Your task to perform on an android device: Add "dell xps" to the cart on target Image 0: 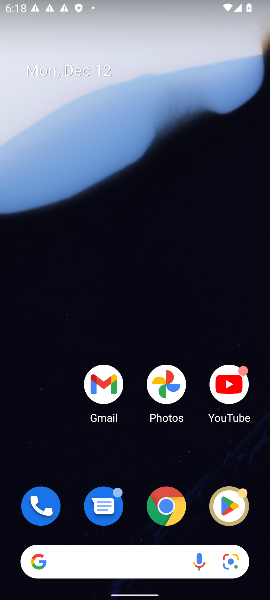
Step 0: click (151, 565)
Your task to perform on an android device: Add "dell xps" to the cart on target Image 1: 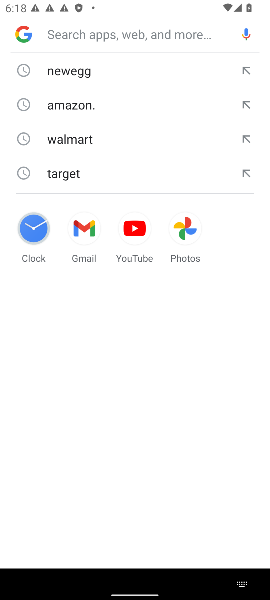
Step 1: click (96, 178)
Your task to perform on an android device: Add "dell xps" to the cart on target Image 2: 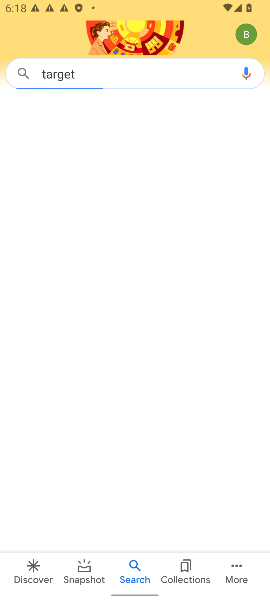
Step 2: click (96, 178)
Your task to perform on an android device: Add "dell xps" to the cart on target Image 3: 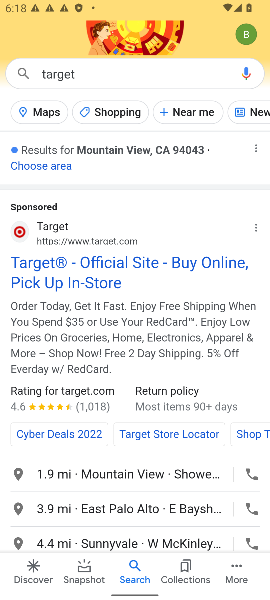
Step 3: click (59, 283)
Your task to perform on an android device: Add "dell xps" to the cart on target Image 4: 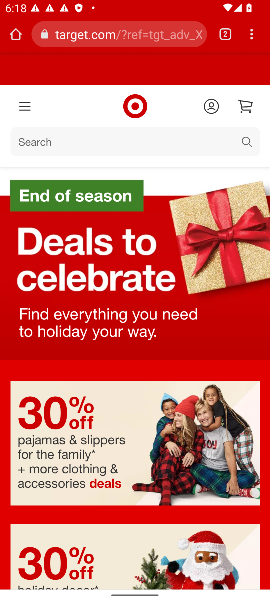
Step 4: click (92, 149)
Your task to perform on an android device: Add "dell xps" to the cart on target Image 5: 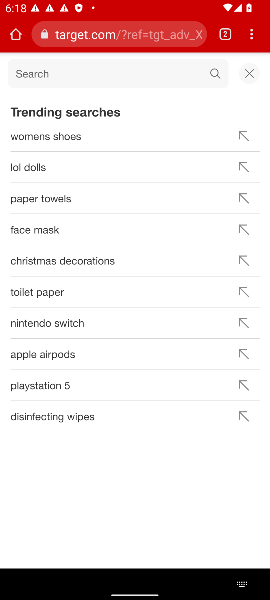
Step 5: type "dell xps"
Your task to perform on an android device: Add "dell xps" to the cart on target Image 6: 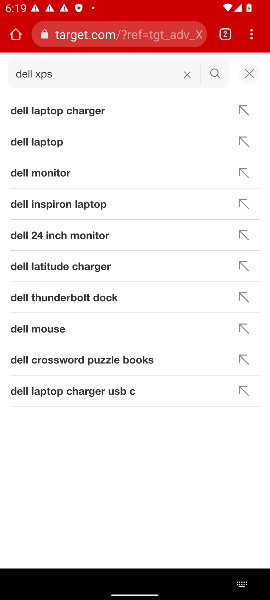
Step 6: click (217, 74)
Your task to perform on an android device: Add "dell xps" to the cart on target Image 7: 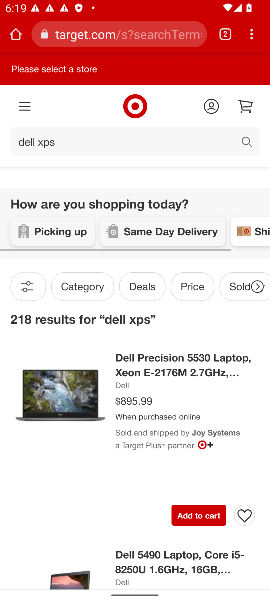
Step 7: click (204, 498)
Your task to perform on an android device: Add "dell xps" to the cart on target Image 8: 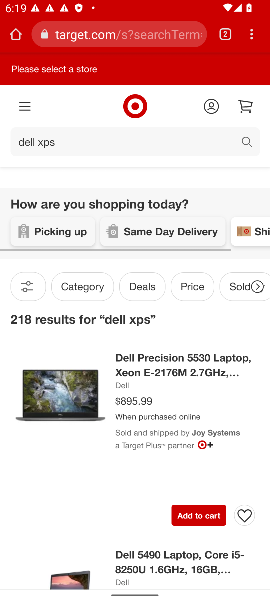
Step 8: click (196, 517)
Your task to perform on an android device: Add "dell xps" to the cart on target Image 9: 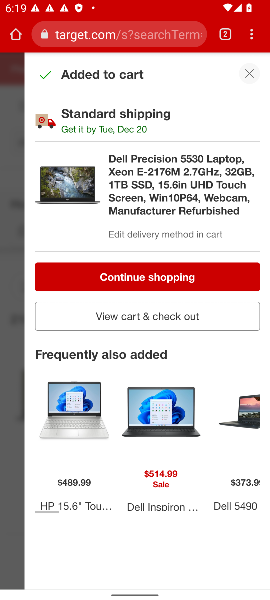
Step 9: click (185, 284)
Your task to perform on an android device: Add "dell xps" to the cart on target Image 10: 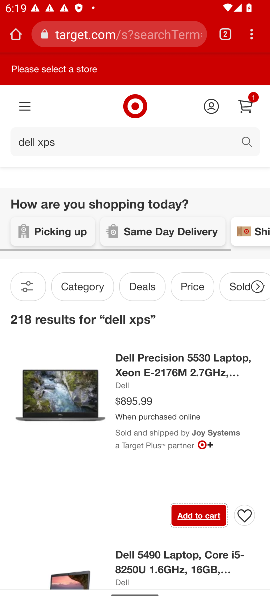
Step 10: task complete